Your task to perform on an android device: What's the weather going to be tomorrow? Image 0: 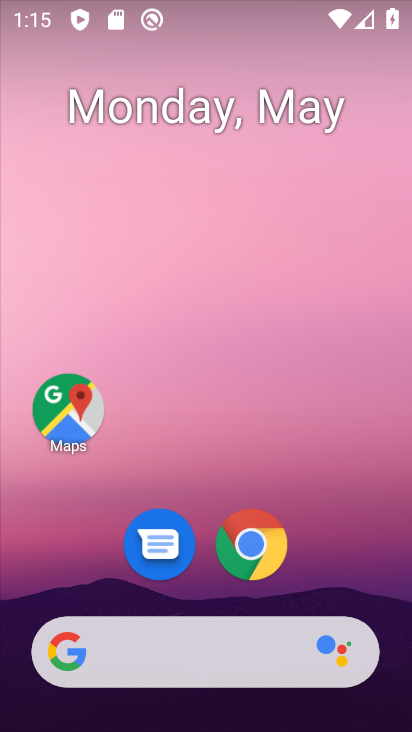
Step 0: click (234, 659)
Your task to perform on an android device: What's the weather going to be tomorrow? Image 1: 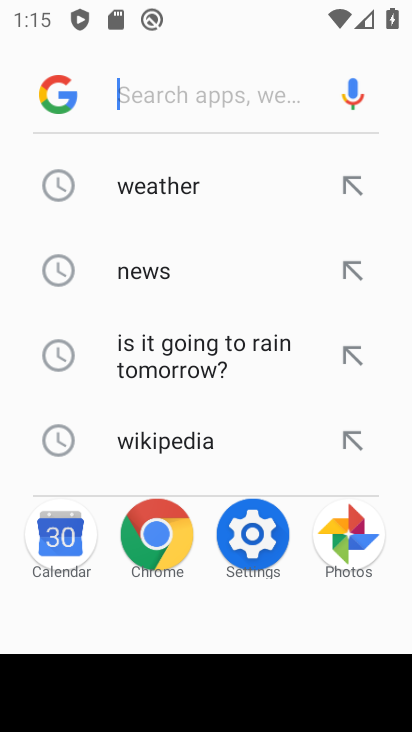
Step 1: click (174, 359)
Your task to perform on an android device: What's the weather going to be tomorrow? Image 2: 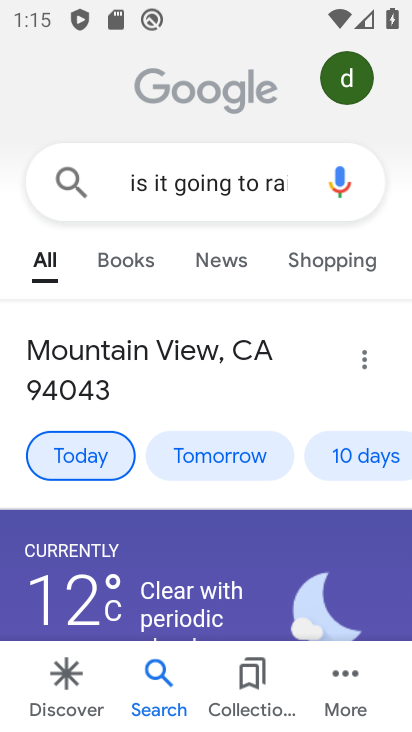
Step 2: click (259, 446)
Your task to perform on an android device: What's the weather going to be tomorrow? Image 3: 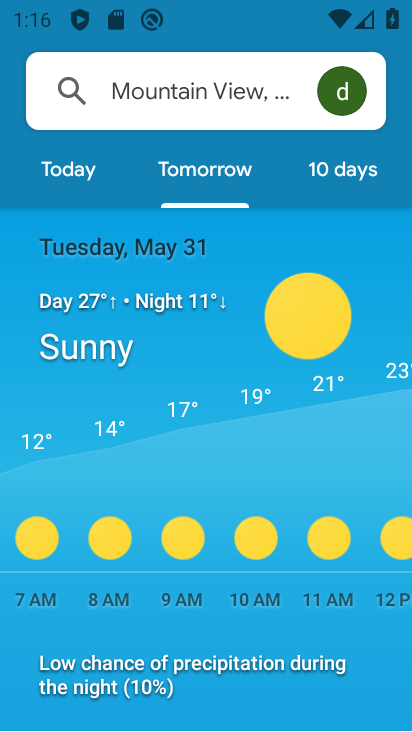
Step 3: task complete